Your task to perform on an android device: Open calendar and show me the second week of next month Image 0: 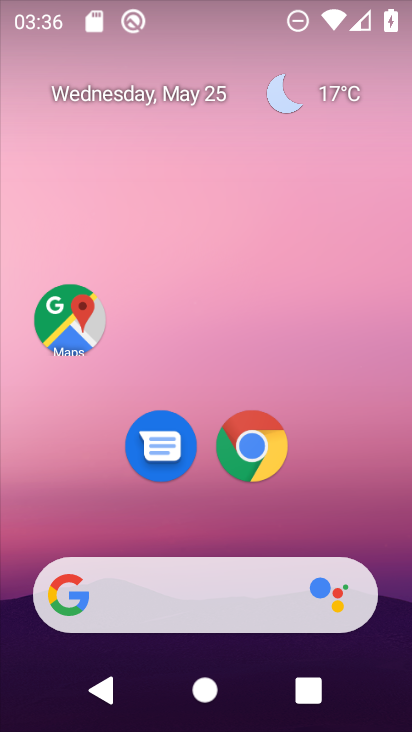
Step 0: drag from (198, 586) to (235, 121)
Your task to perform on an android device: Open calendar and show me the second week of next month Image 1: 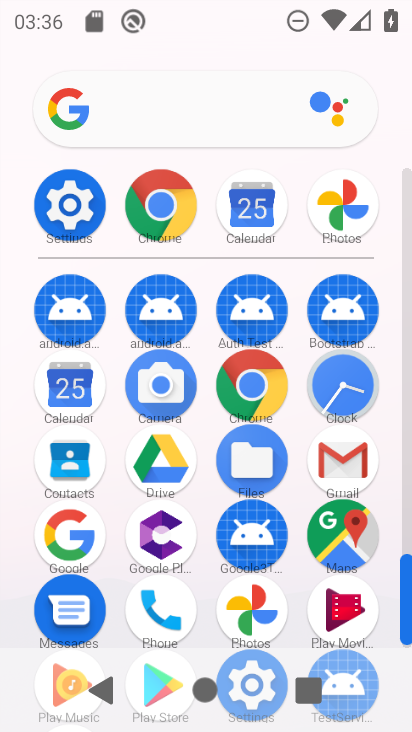
Step 1: click (80, 391)
Your task to perform on an android device: Open calendar and show me the second week of next month Image 2: 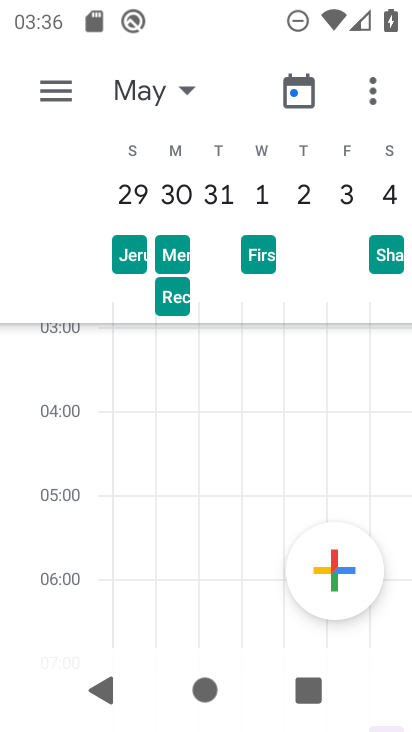
Step 2: click (63, 93)
Your task to perform on an android device: Open calendar and show me the second week of next month Image 3: 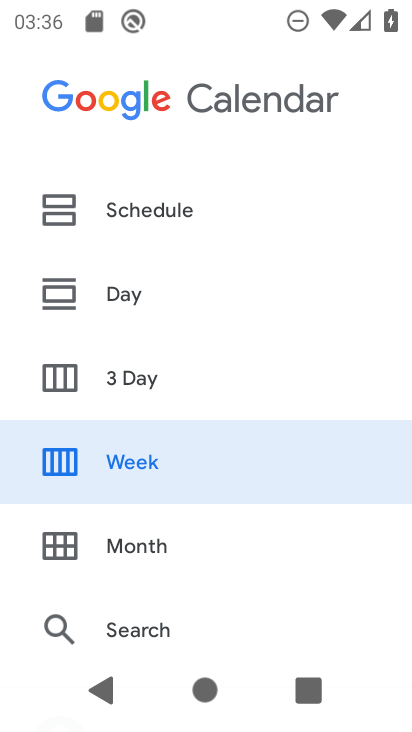
Step 3: click (157, 547)
Your task to perform on an android device: Open calendar and show me the second week of next month Image 4: 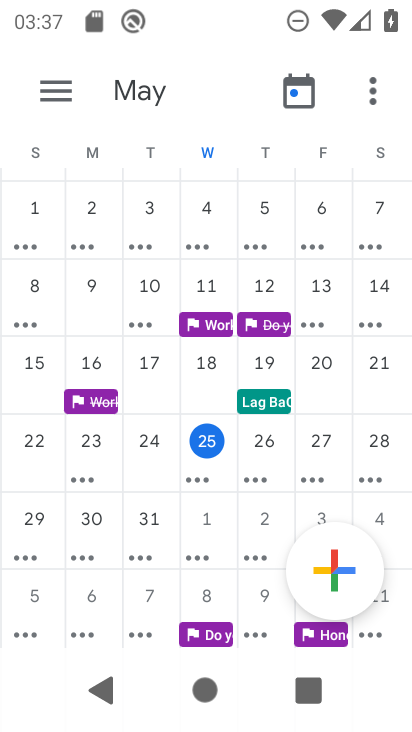
Step 4: task complete